Your task to perform on an android device: turn pop-ups off in chrome Image 0: 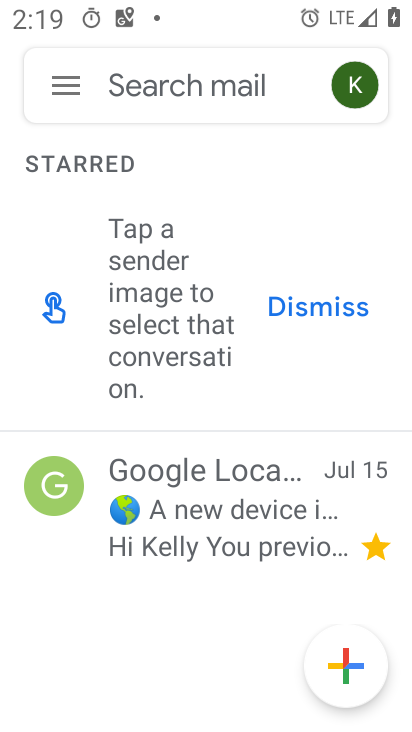
Step 0: press home button
Your task to perform on an android device: turn pop-ups off in chrome Image 1: 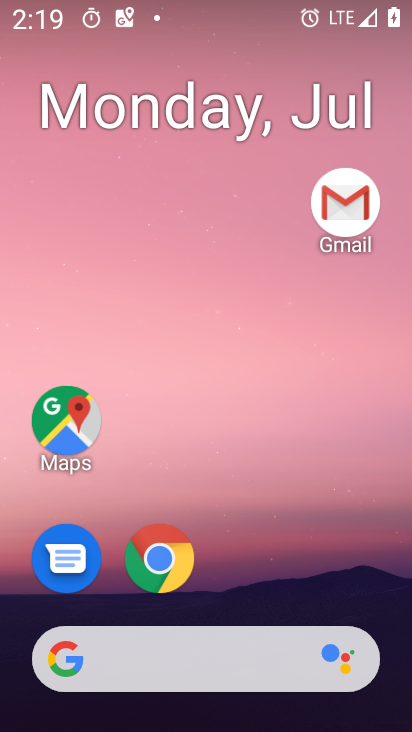
Step 1: drag from (333, 546) to (341, 52)
Your task to perform on an android device: turn pop-ups off in chrome Image 2: 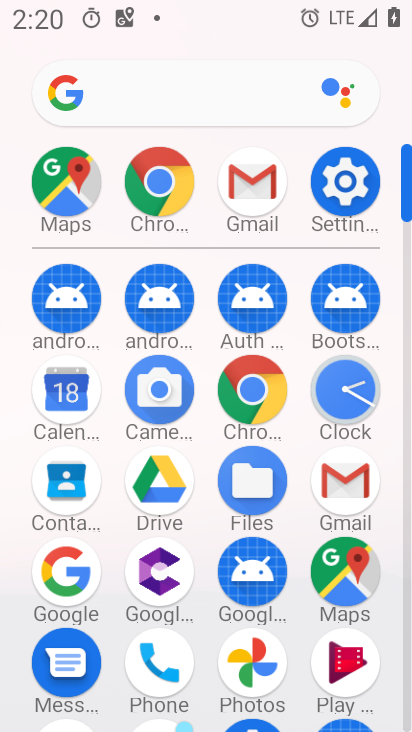
Step 2: click (269, 383)
Your task to perform on an android device: turn pop-ups off in chrome Image 3: 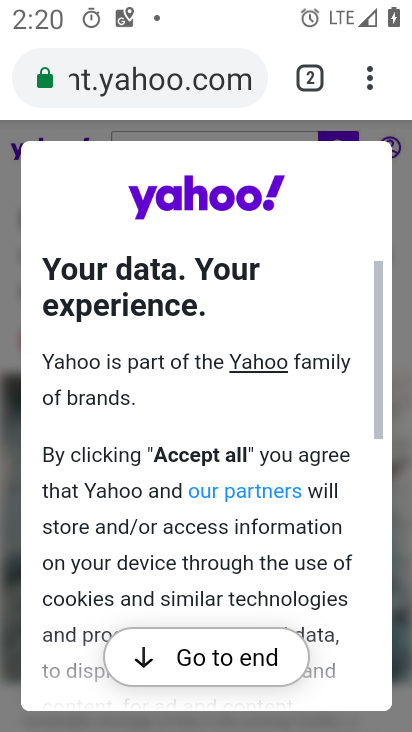
Step 3: click (368, 91)
Your task to perform on an android device: turn pop-ups off in chrome Image 4: 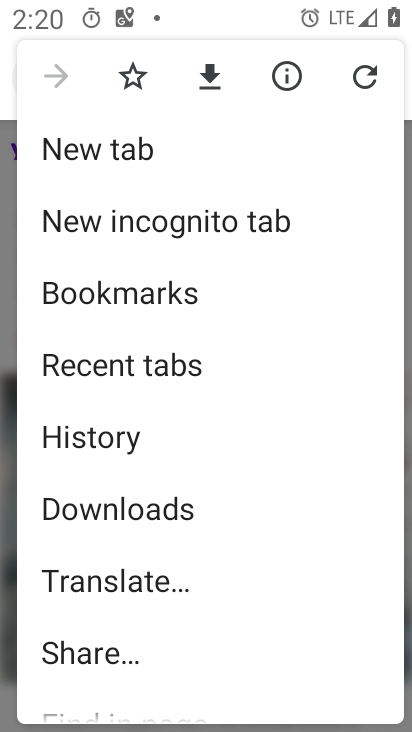
Step 4: drag from (321, 431) to (319, 358)
Your task to perform on an android device: turn pop-ups off in chrome Image 5: 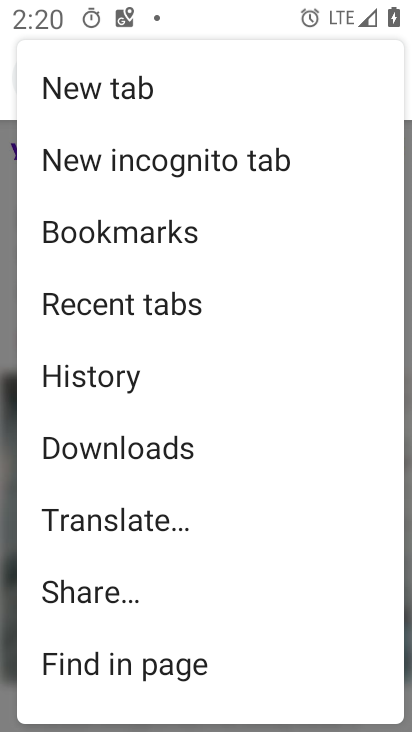
Step 5: drag from (264, 480) to (276, 373)
Your task to perform on an android device: turn pop-ups off in chrome Image 6: 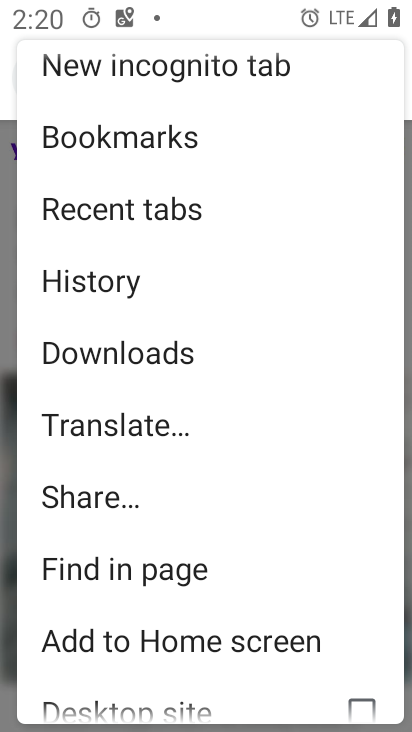
Step 6: drag from (304, 464) to (313, 385)
Your task to perform on an android device: turn pop-ups off in chrome Image 7: 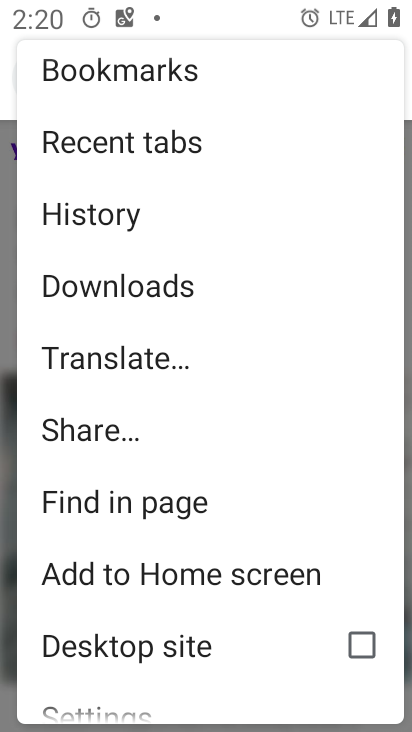
Step 7: drag from (315, 461) to (320, 350)
Your task to perform on an android device: turn pop-ups off in chrome Image 8: 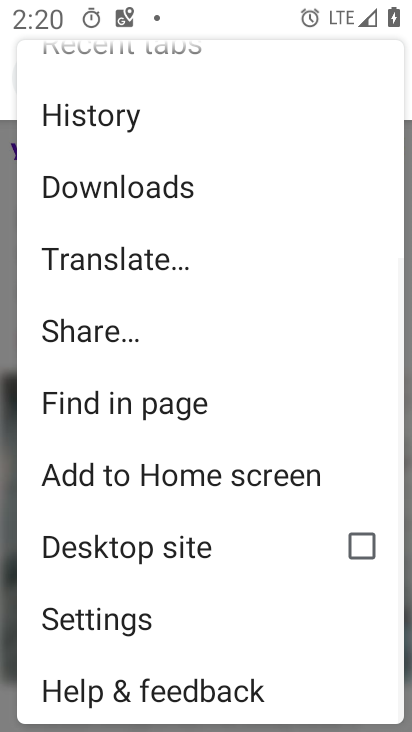
Step 8: drag from (321, 429) to (319, 326)
Your task to perform on an android device: turn pop-ups off in chrome Image 9: 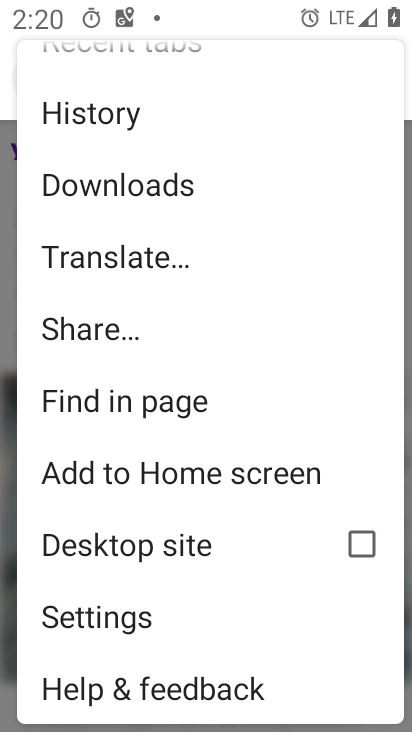
Step 9: click (194, 603)
Your task to perform on an android device: turn pop-ups off in chrome Image 10: 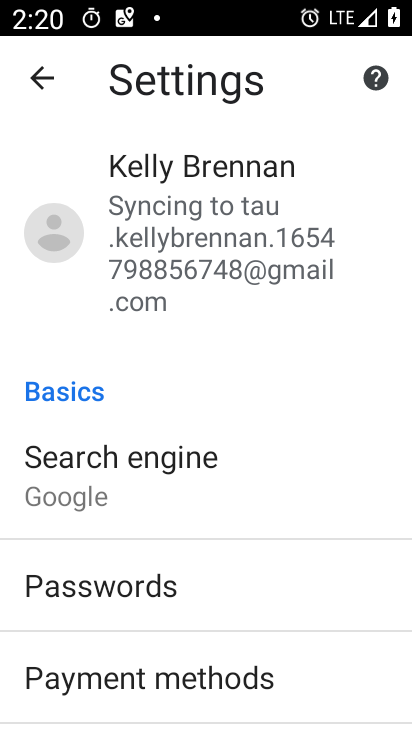
Step 10: drag from (321, 556) to (343, 453)
Your task to perform on an android device: turn pop-ups off in chrome Image 11: 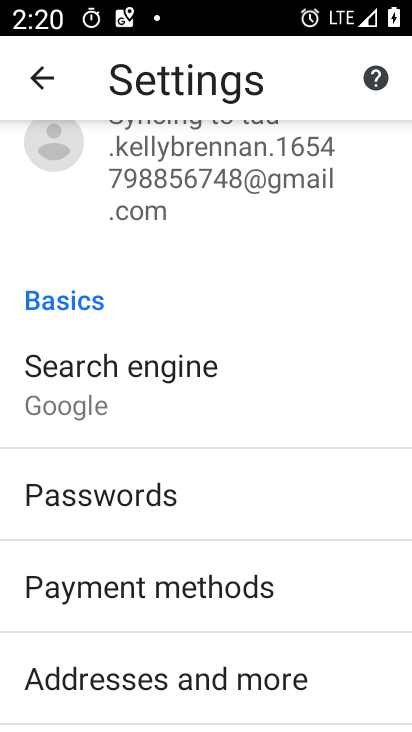
Step 11: drag from (314, 599) to (309, 406)
Your task to perform on an android device: turn pop-ups off in chrome Image 12: 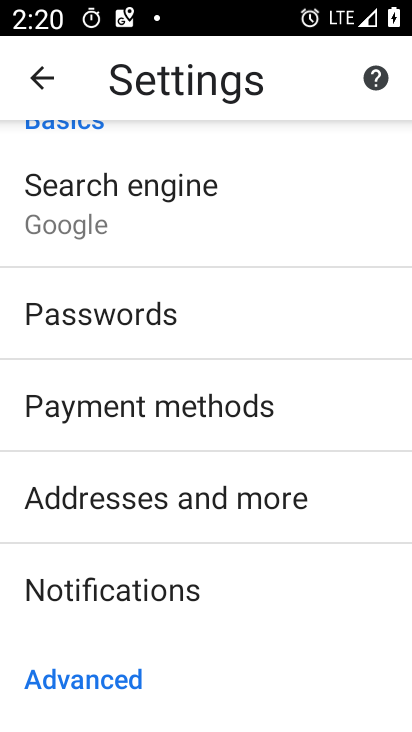
Step 12: drag from (324, 599) to (327, 486)
Your task to perform on an android device: turn pop-ups off in chrome Image 13: 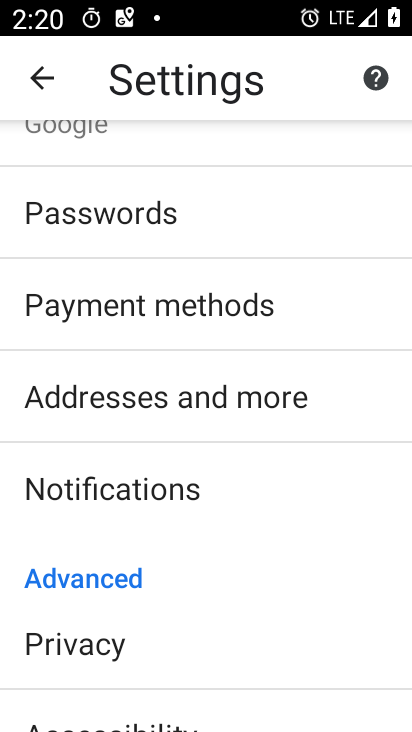
Step 13: drag from (327, 592) to (324, 365)
Your task to perform on an android device: turn pop-ups off in chrome Image 14: 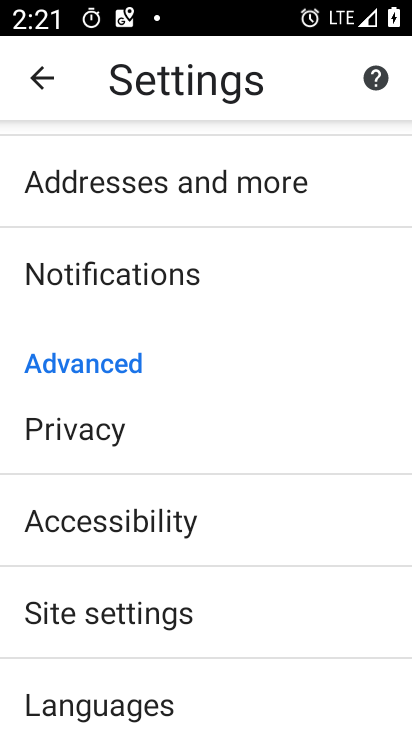
Step 14: drag from (306, 580) to (305, 367)
Your task to perform on an android device: turn pop-ups off in chrome Image 15: 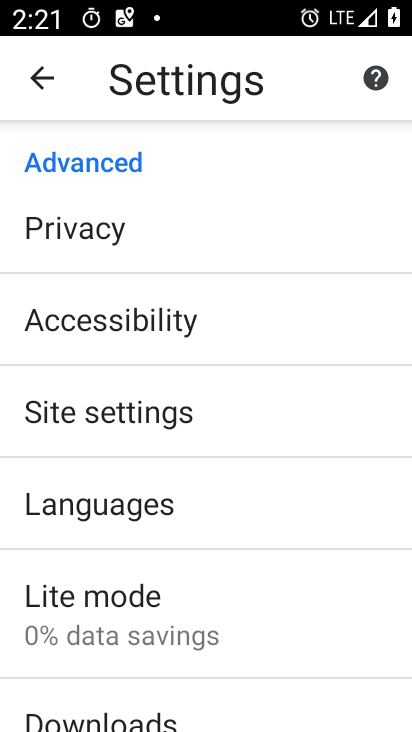
Step 15: click (279, 427)
Your task to perform on an android device: turn pop-ups off in chrome Image 16: 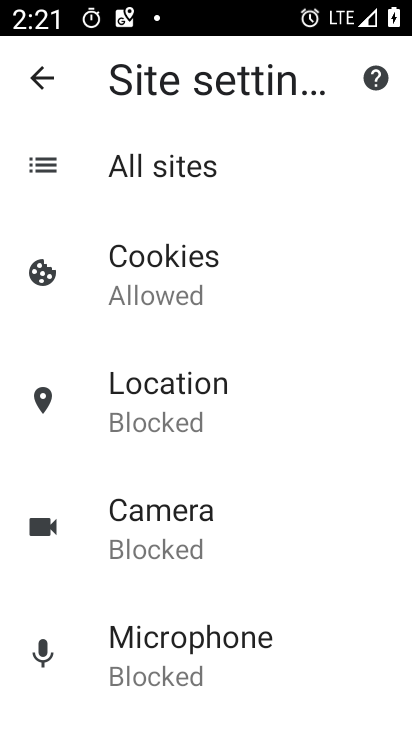
Step 16: drag from (300, 475) to (305, 312)
Your task to perform on an android device: turn pop-ups off in chrome Image 17: 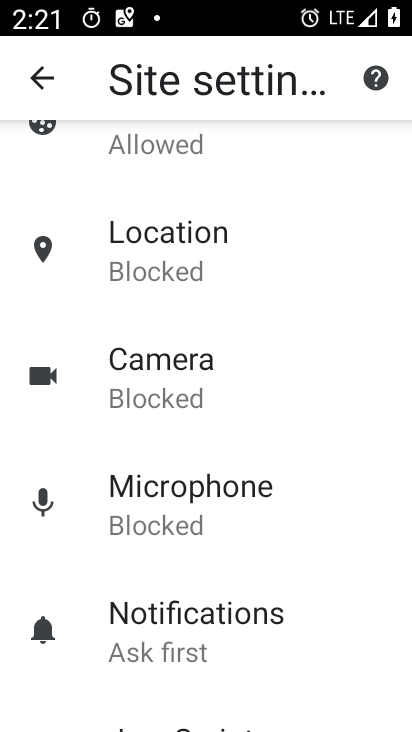
Step 17: drag from (307, 454) to (307, 332)
Your task to perform on an android device: turn pop-ups off in chrome Image 18: 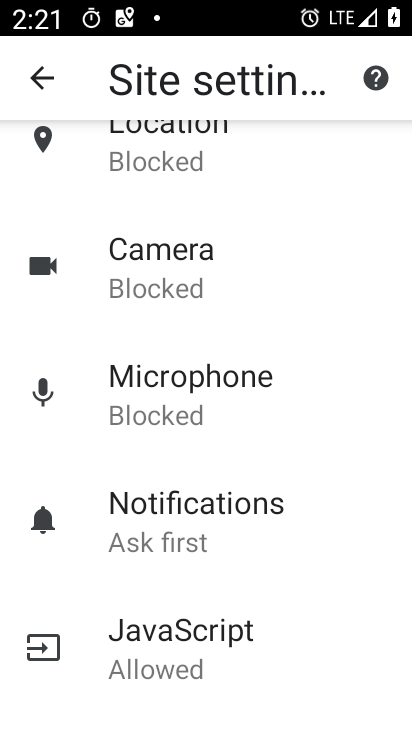
Step 18: drag from (334, 526) to (333, 407)
Your task to perform on an android device: turn pop-ups off in chrome Image 19: 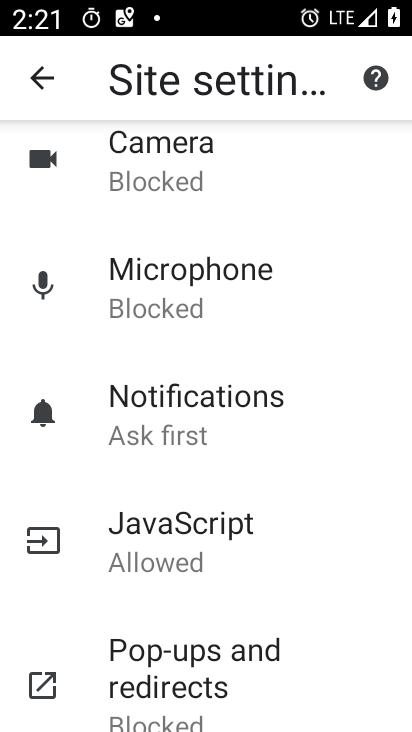
Step 19: drag from (311, 561) to (310, 440)
Your task to perform on an android device: turn pop-ups off in chrome Image 20: 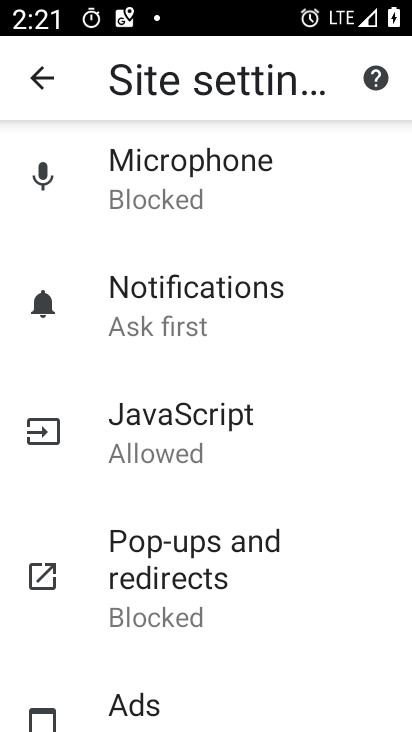
Step 20: drag from (313, 589) to (301, 453)
Your task to perform on an android device: turn pop-ups off in chrome Image 21: 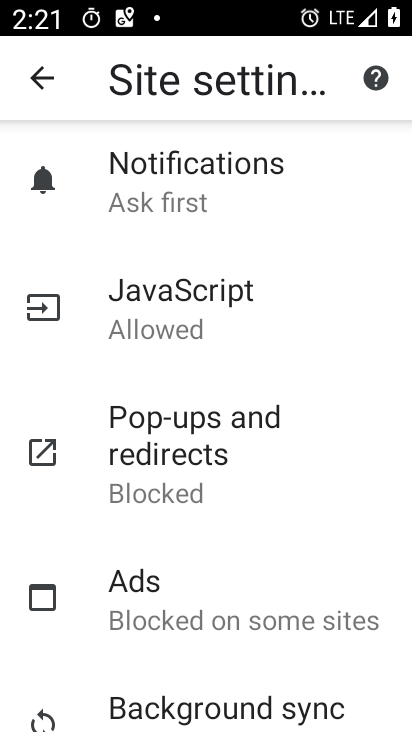
Step 21: click (272, 450)
Your task to perform on an android device: turn pop-ups off in chrome Image 22: 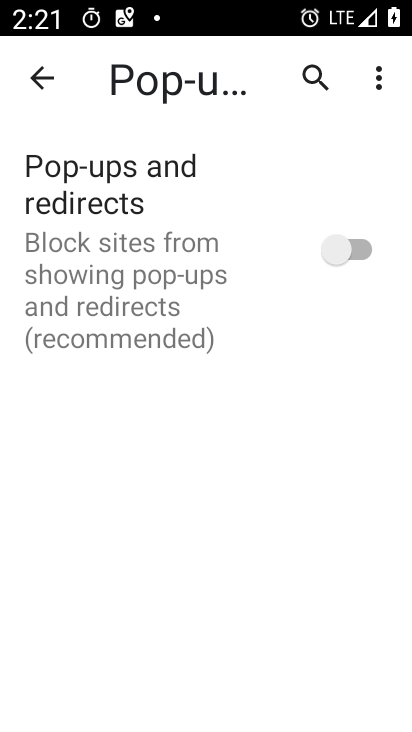
Step 22: task complete